Your task to perform on an android device: Do I have any events tomorrow? Image 0: 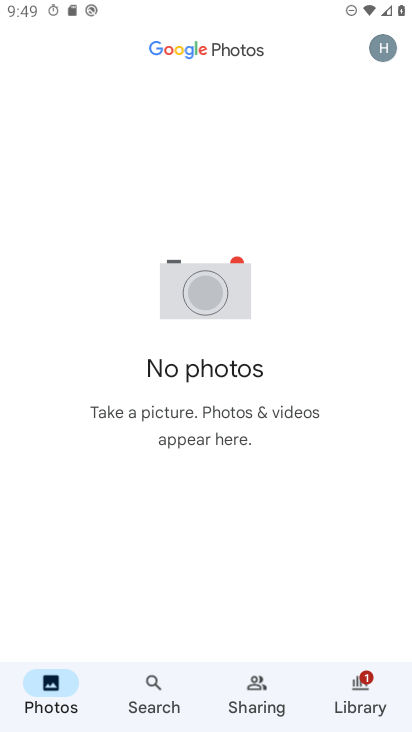
Step 0: press home button
Your task to perform on an android device: Do I have any events tomorrow? Image 1: 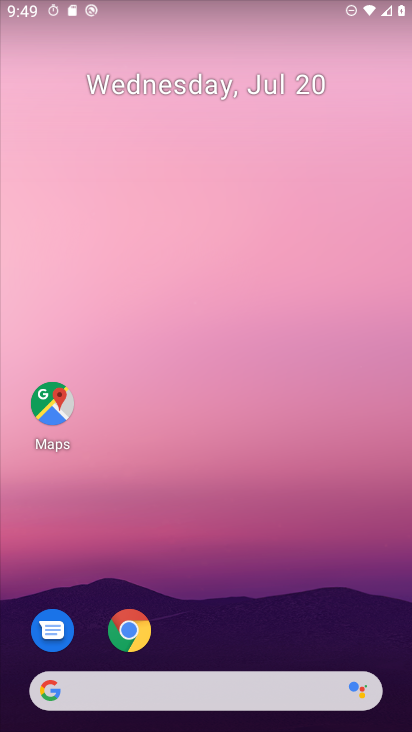
Step 1: drag from (253, 653) to (245, 117)
Your task to perform on an android device: Do I have any events tomorrow? Image 2: 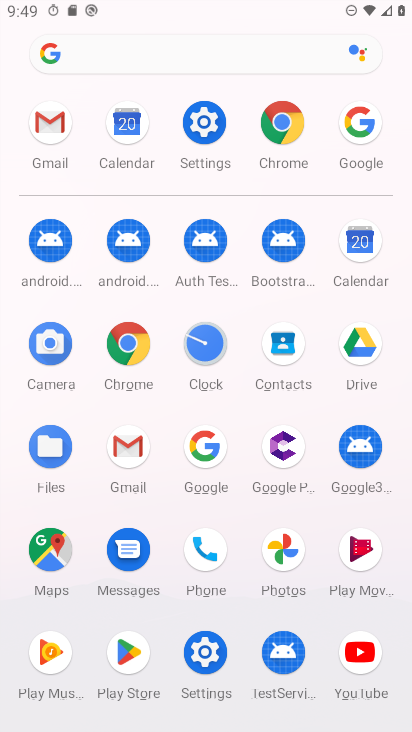
Step 2: click (354, 258)
Your task to perform on an android device: Do I have any events tomorrow? Image 3: 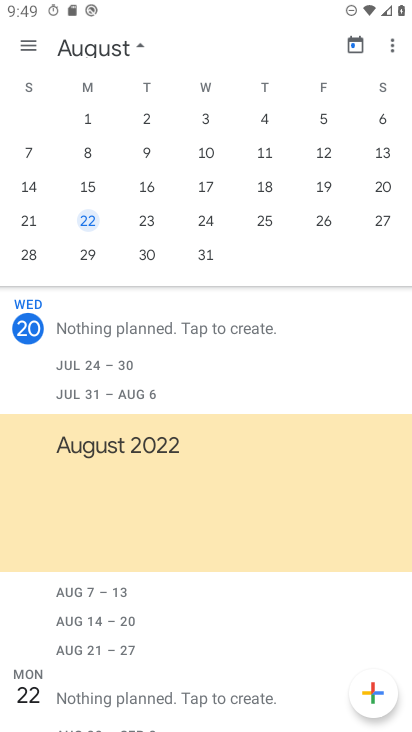
Step 3: drag from (49, 223) to (405, 214)
Your task to perform on an android device: Do I have any events tomorrow? Image 4: 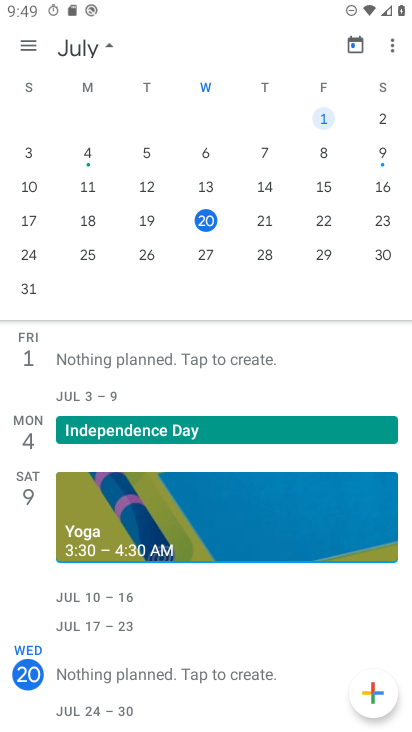
Step 4: click (264, 224)
Your task to perform on an android device: Do I have any events tomorrow? Image 5: 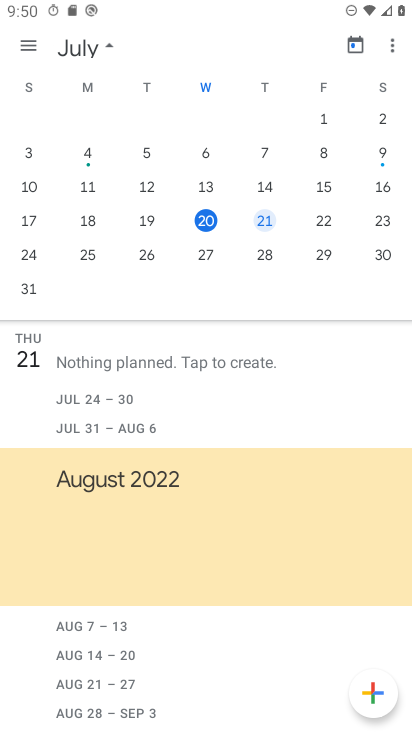
Step 5: task complete